Your task to perform on an android device: uninstall "Yahoo Mail" Image 0: 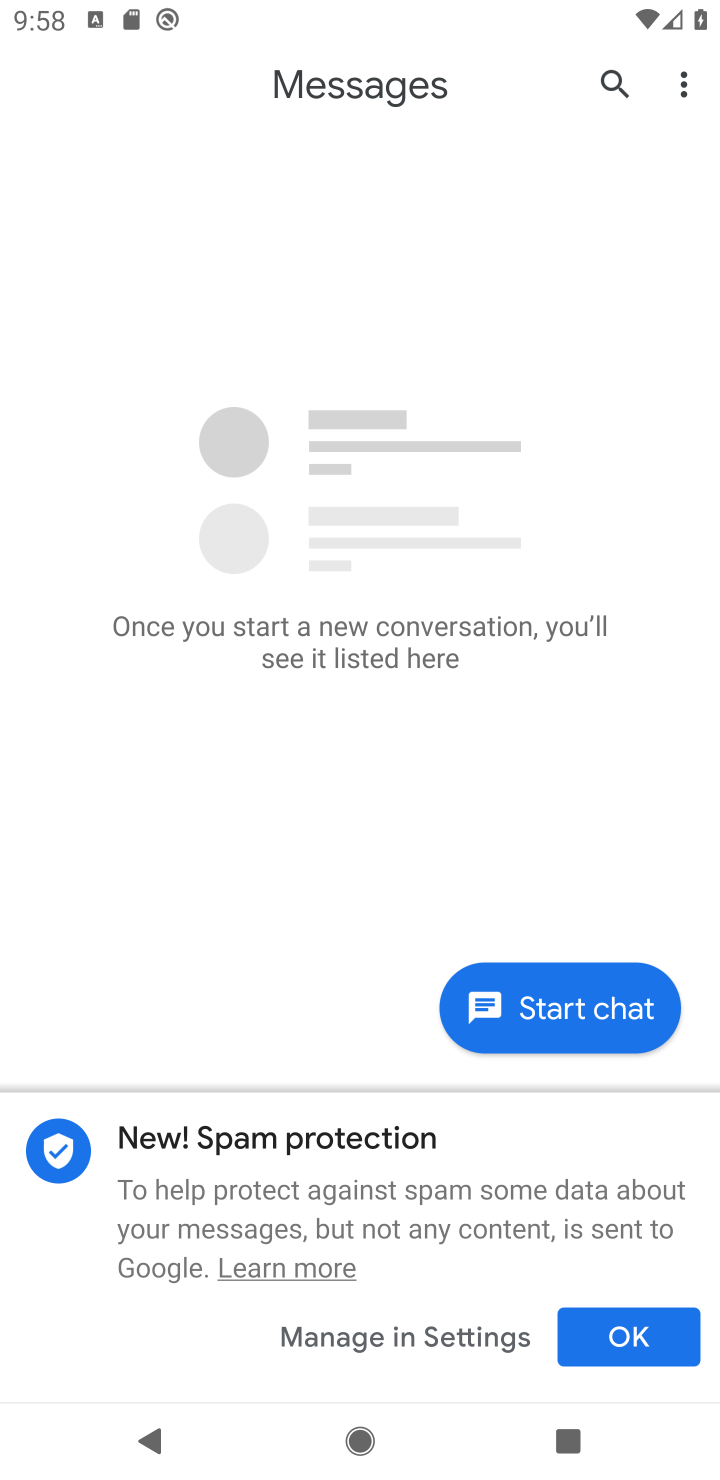
Step 0: press back button
Your task to perform on an android device: uninstall "Yahoo Mail" Image 1: 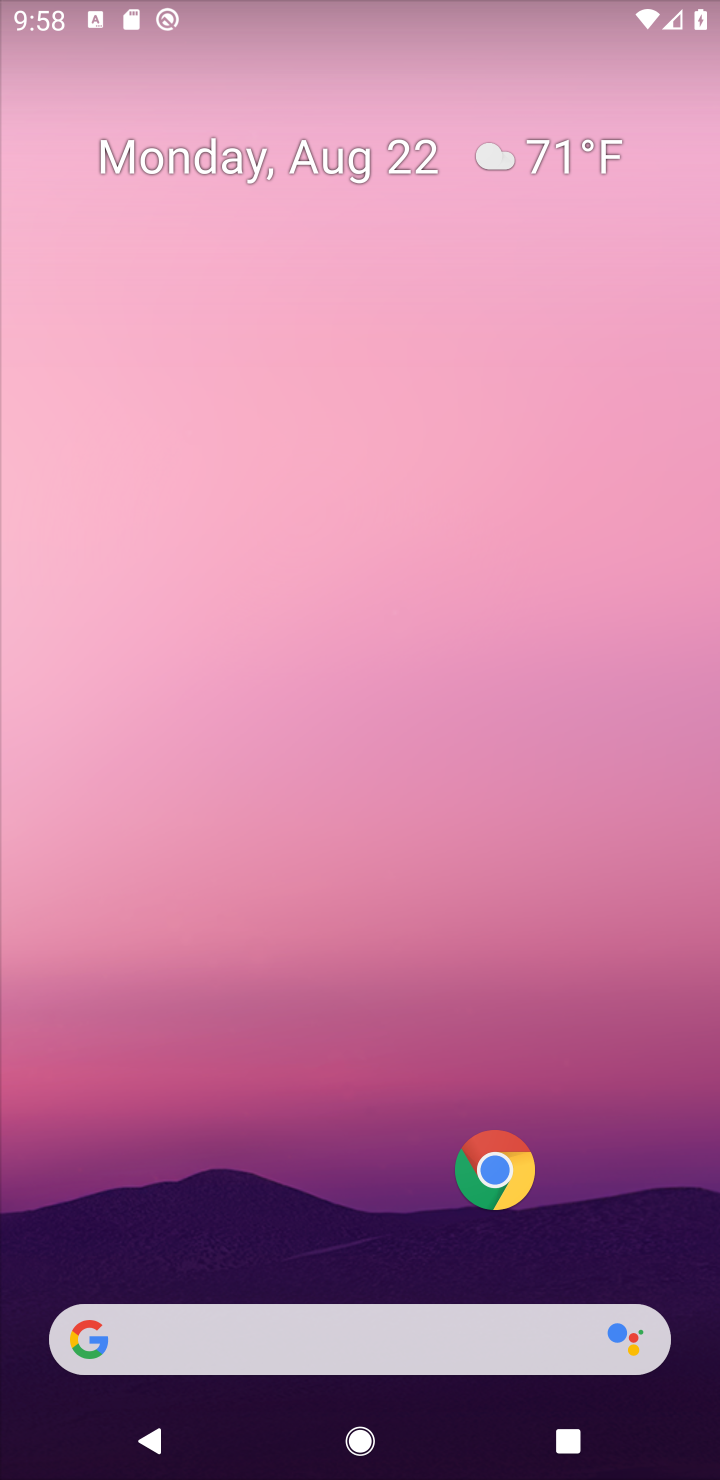
Step 1: drag from (215, 1112) to (390, 88)
Your task to perform on an android device: uninstall "Yahoo Mail" Image 2: 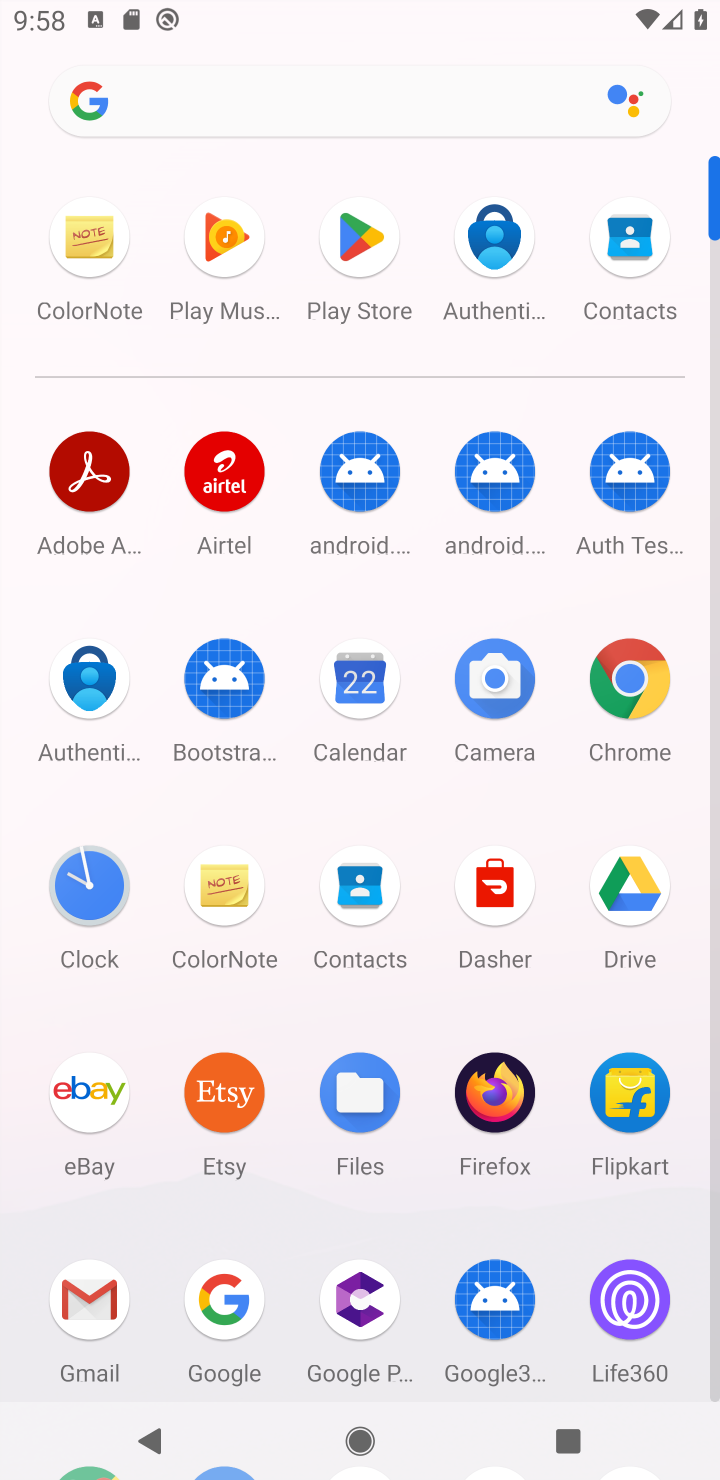
Step 2: click (363, 237)
Your task to perform on an android device: uninstall "Yahoo Mail" Image 3: 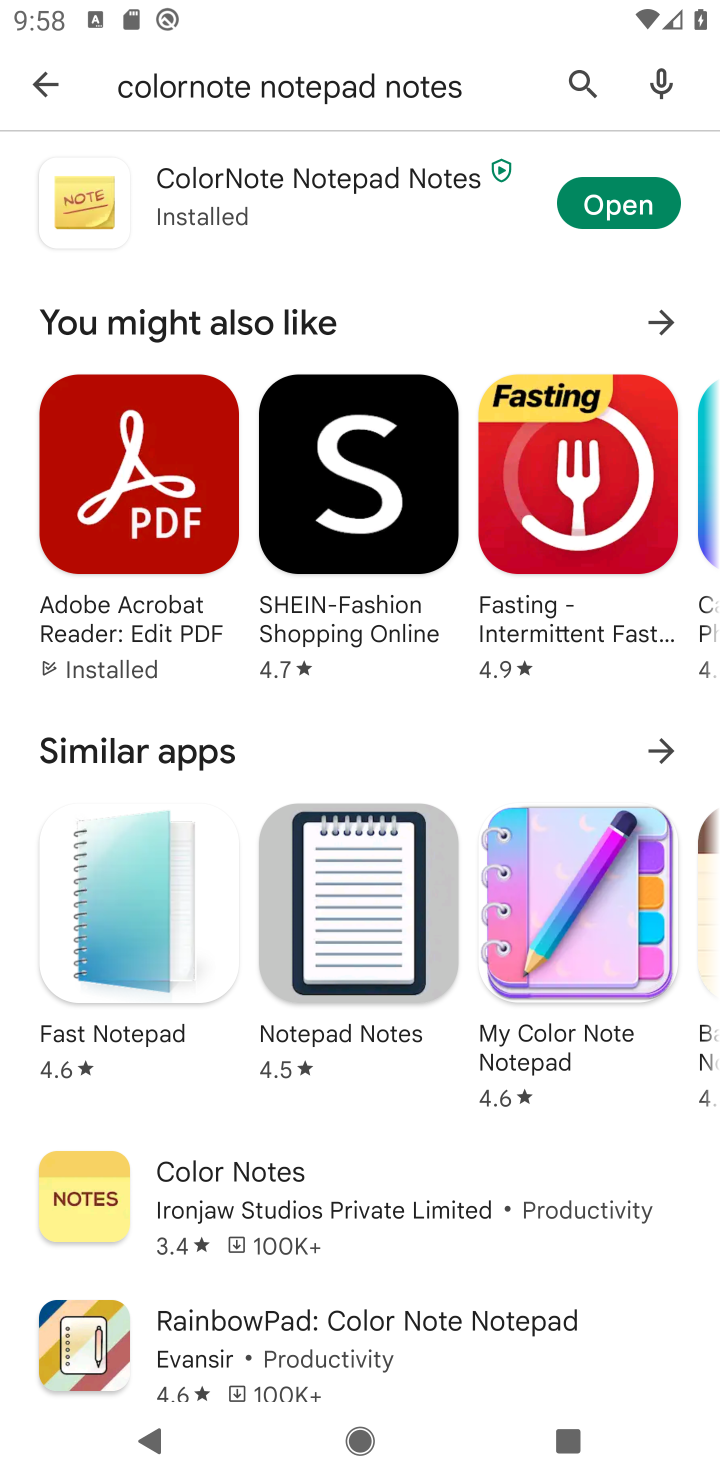
Step 3: click (600, 75)
Your task to perform on an android device: uninstall "Yahoo Mail" Image 4: 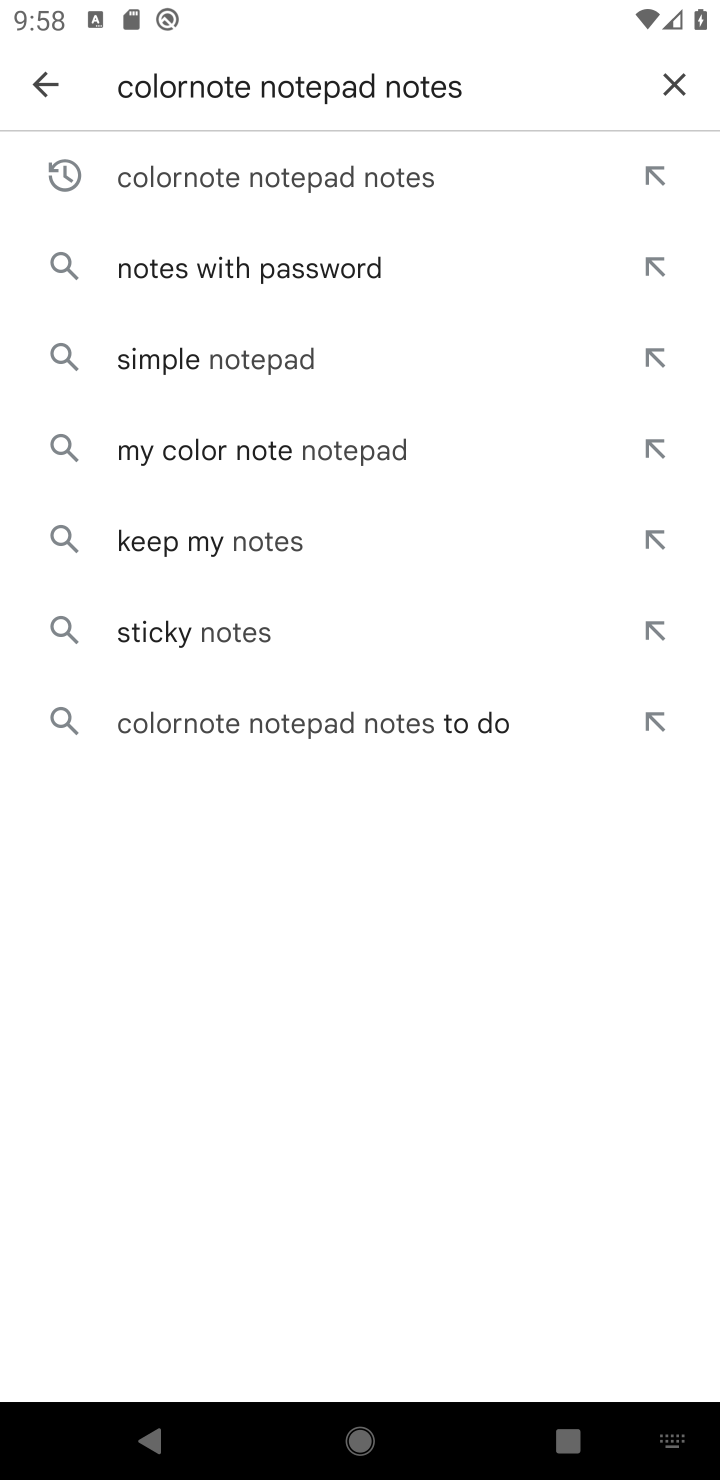
Step 4: click (679, 76)
Your task to perform on an android device: uninstall "Yahoo Mail" Image 5: 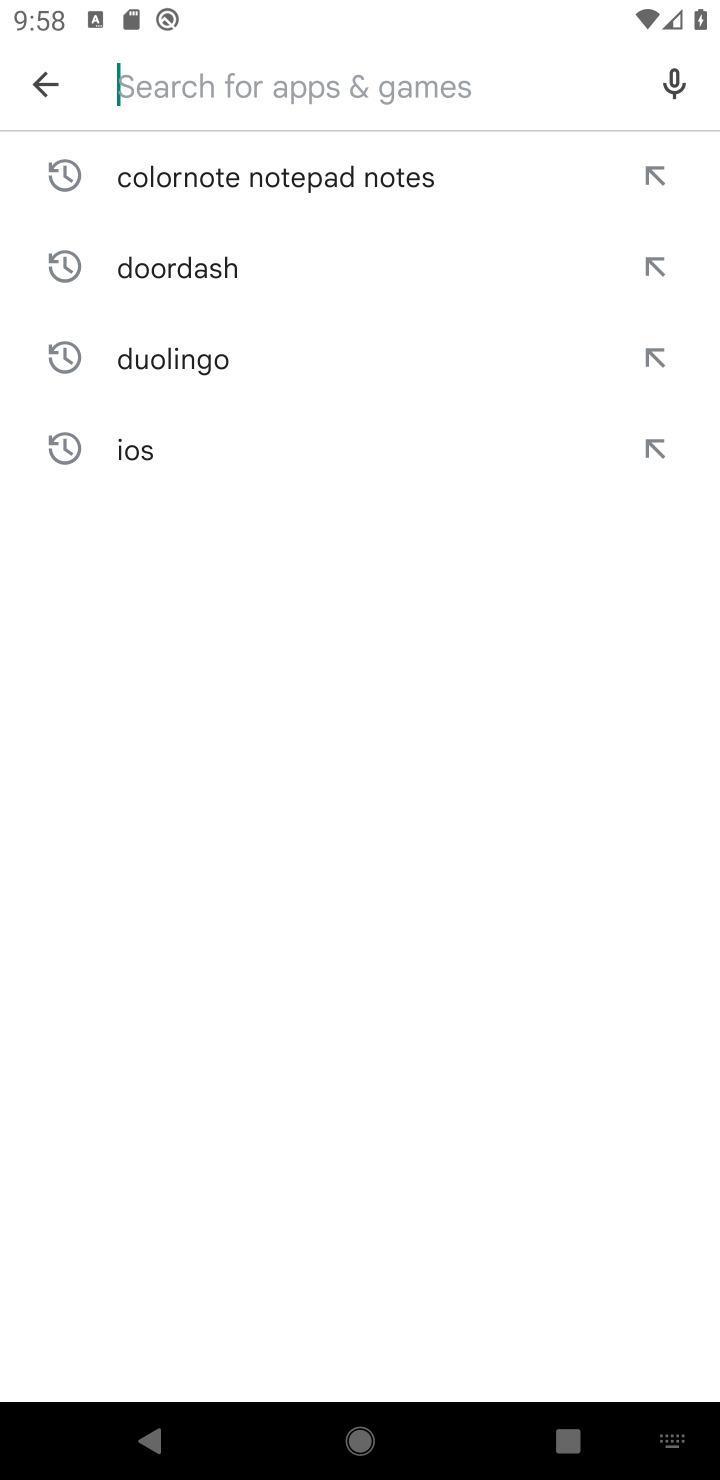
Step 5: click (212, 84)
Your task to perform on an android device: uninstall "Yahoo Mail" Image 6: 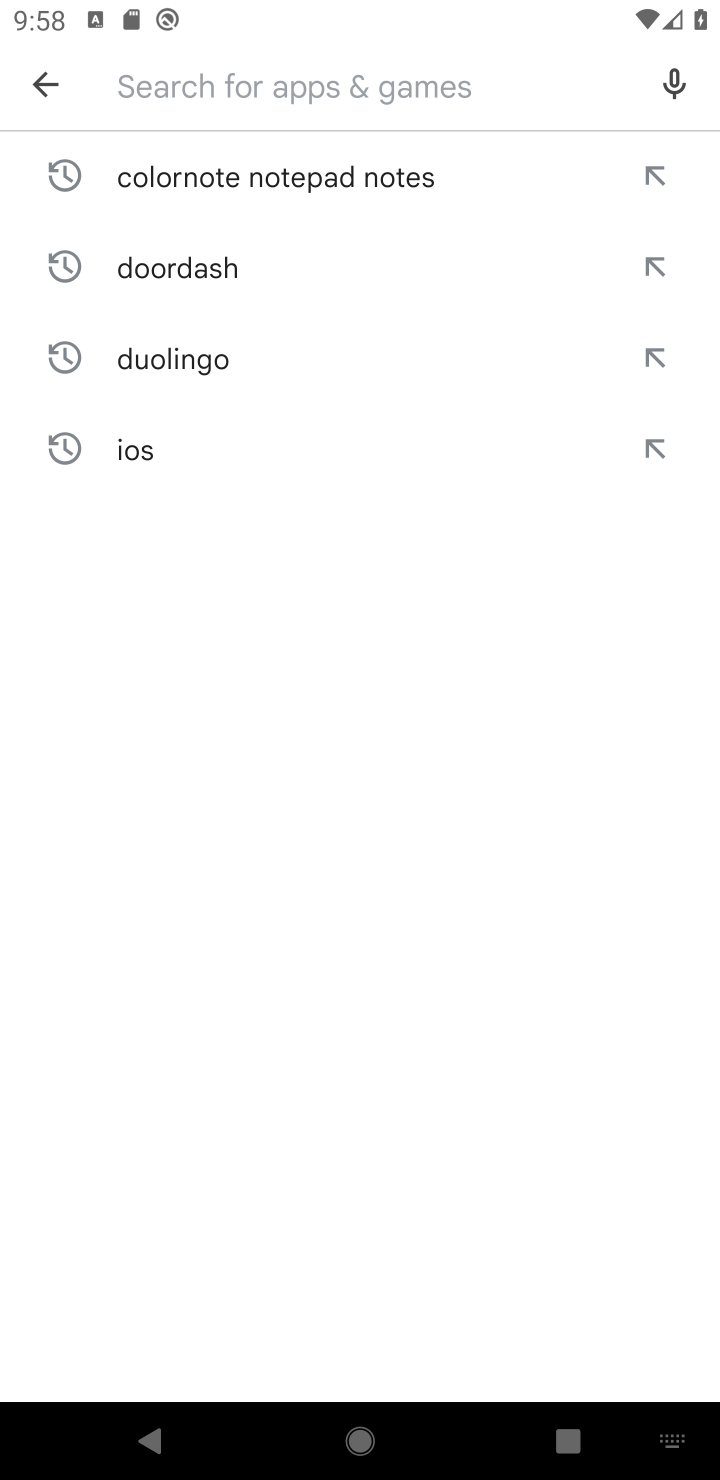
Step 6: type "Yahoo Mail"
Your task to perform on an android device: uninstall "Yahoo Mail" Image 7: 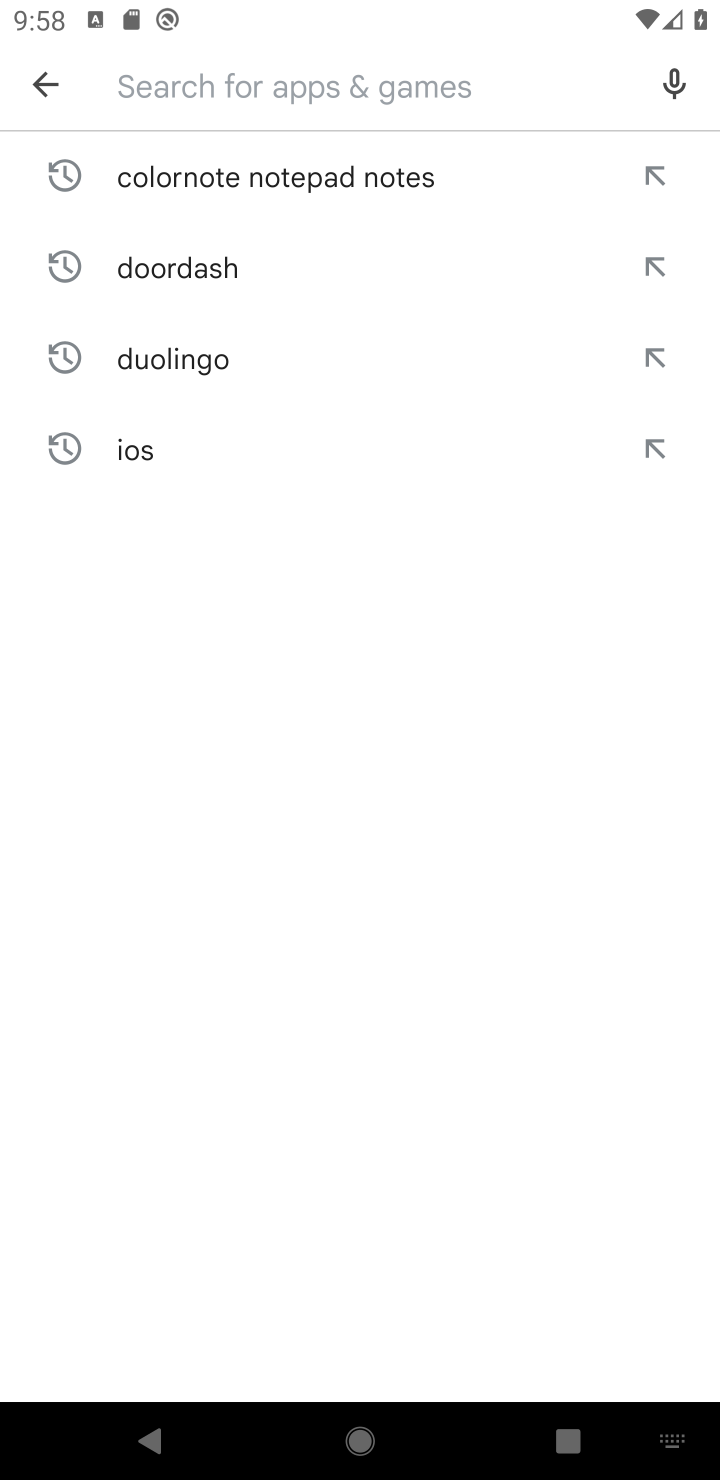
Step 7: click (458, 962)
Your task to perform on an android device: uninstall "Yahoo Mail" Image 8: 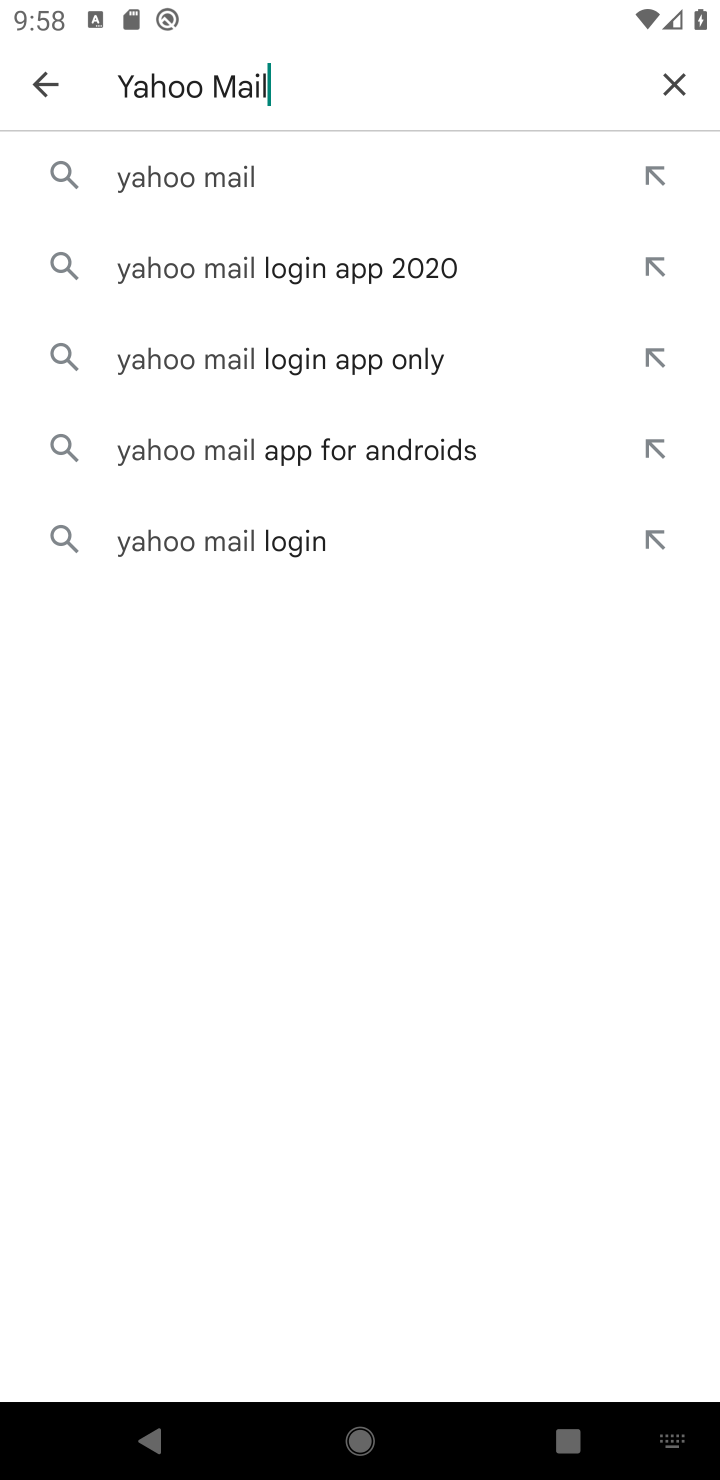
Step 8: click (200, 193)
Your task to perform on an android device: uninstall "Yahoo Mail" Image 9: 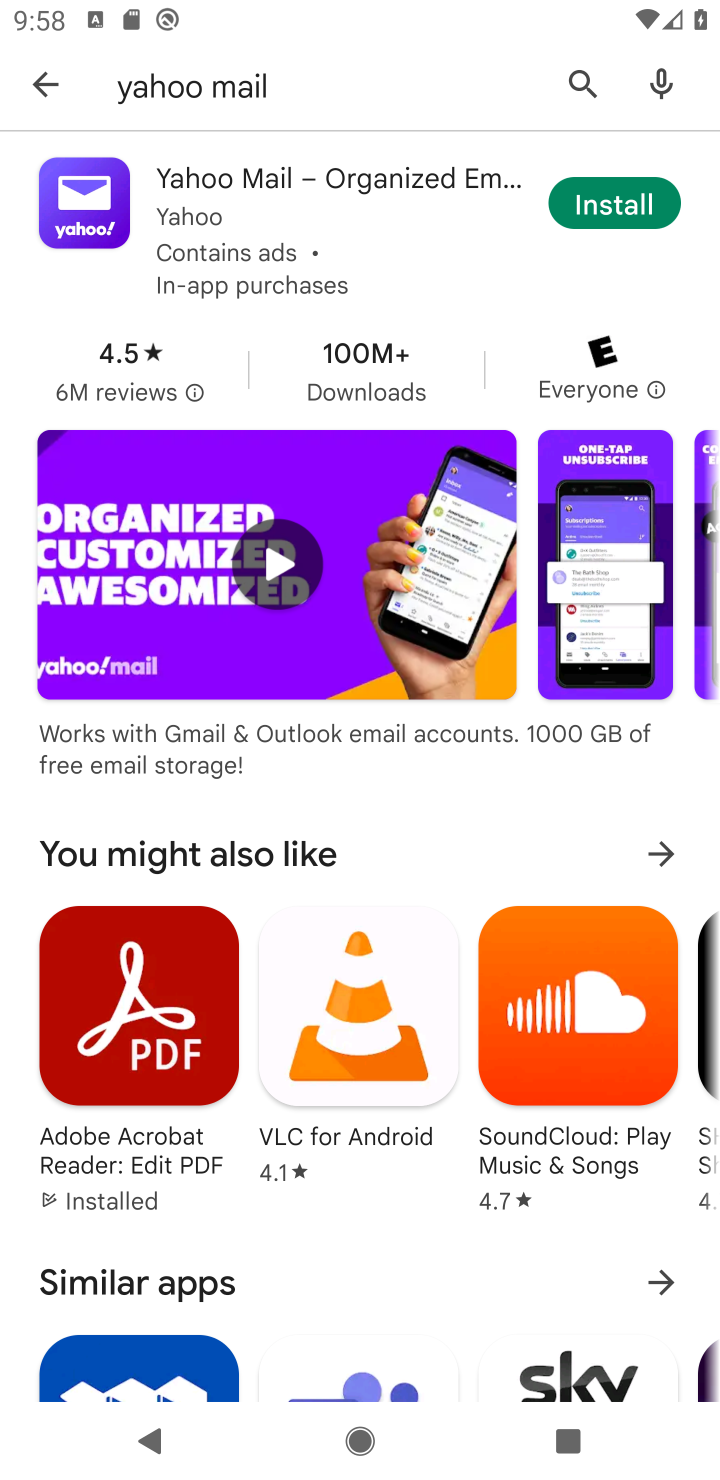
Step 9: click (245, 155)
Your task to perform on an android device: uninstall "Yahoo Mail" Image 10: 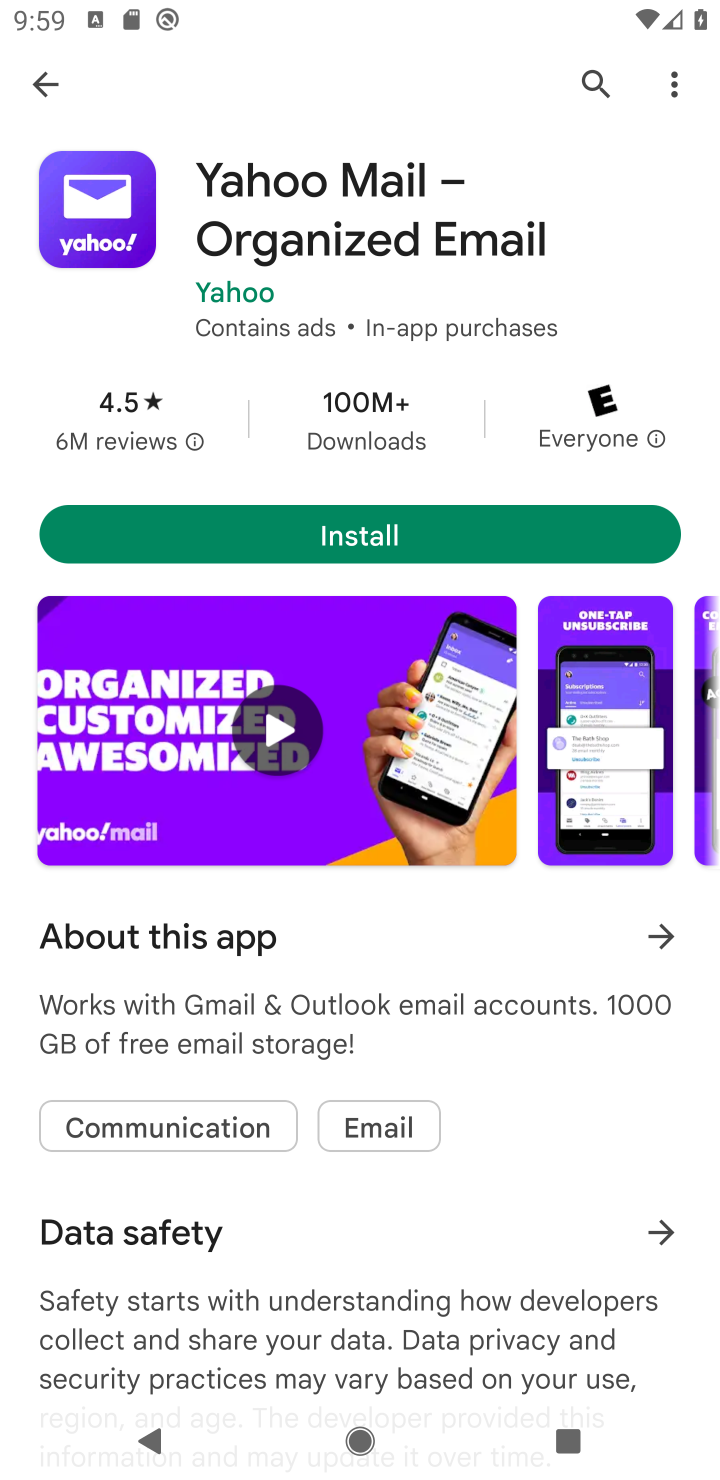
Step 10: task complete